Your task to perform on an android device: check android version Image 0: 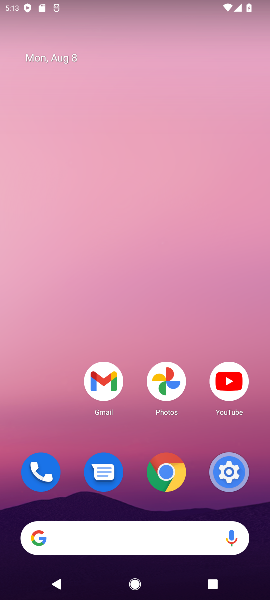
Step 0: drag from (44, 378) to (87, 5)
Your task to perform on an android device: check android version Image 1: 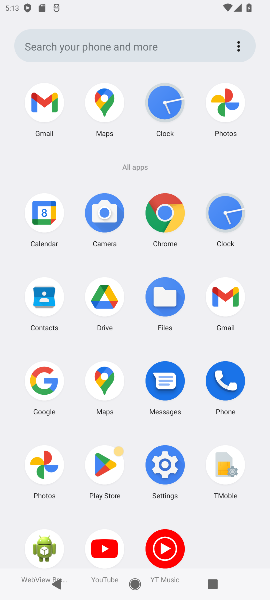
Step 1: click (162, 468)
Your task to perform on an android device: check android version Image 2: 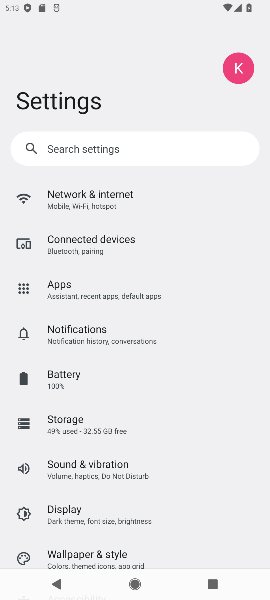
Step 2: drag from (115, 496) to (48, 57)
Your task to perform on an android device: check android version Image 3: 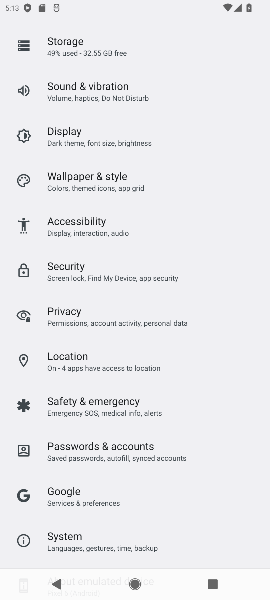
Step 3: drag from (37, 519) to (47, 141)
Your task to perform on an android device: check android version Image 4: 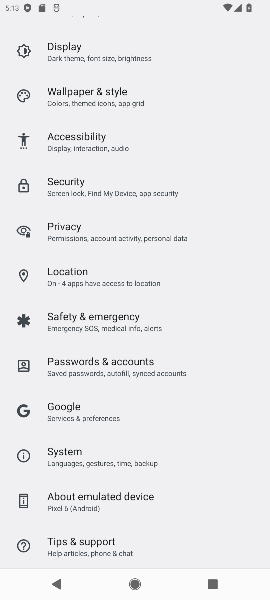
Step 4: click (104, 503)
Your task to perform on an android device: check android version Image 5: 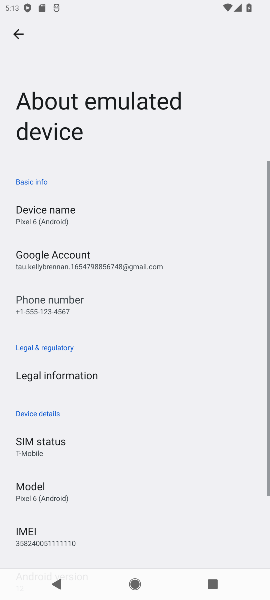
Step 5: drag from (81, 415) to (79, 70)
Your task to perform on an android device: check android version Image 6: 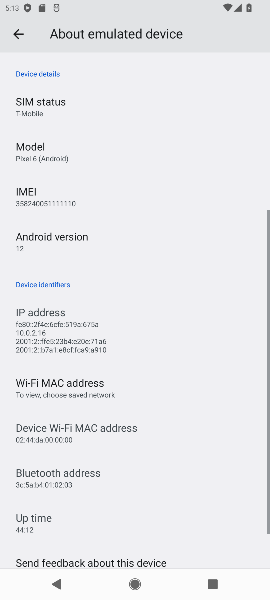
Step 6: click (44, 224)
Your task to perform on an android device: check android version Image 7: 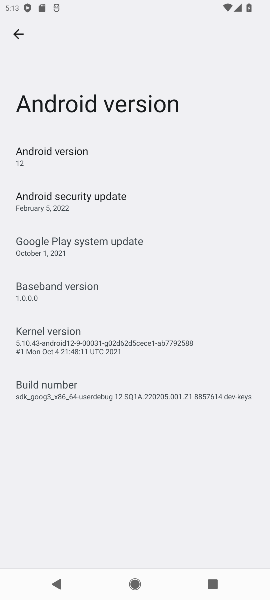
Step 7: task complete